Your task to perform on an android device: Go to notification settings Image 0: 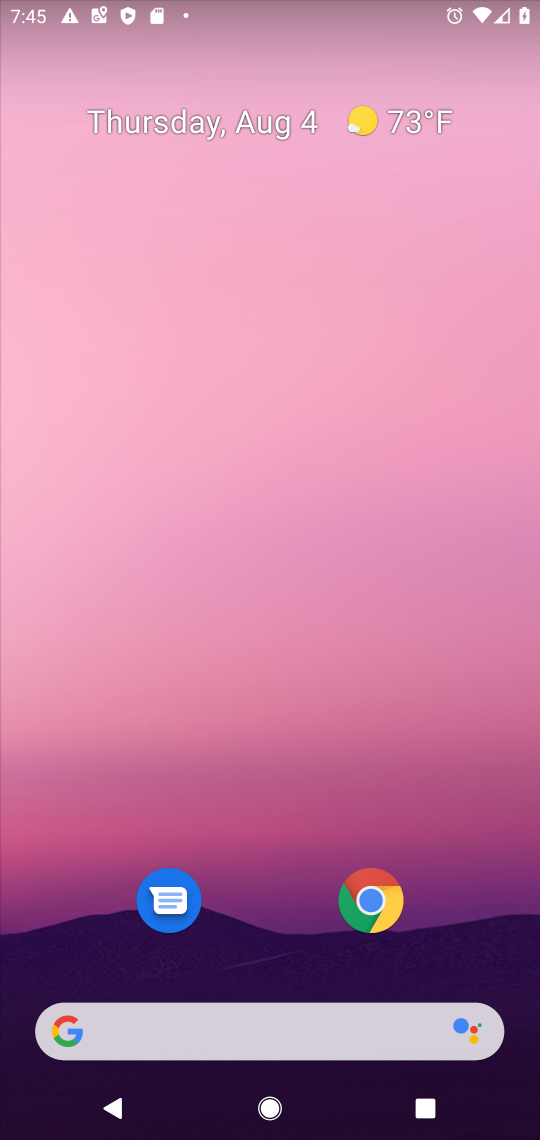
Step 0: drag from (239, 1039) to (435, 211)
Your task to perform on an android device: Go to notification settings Image 1: 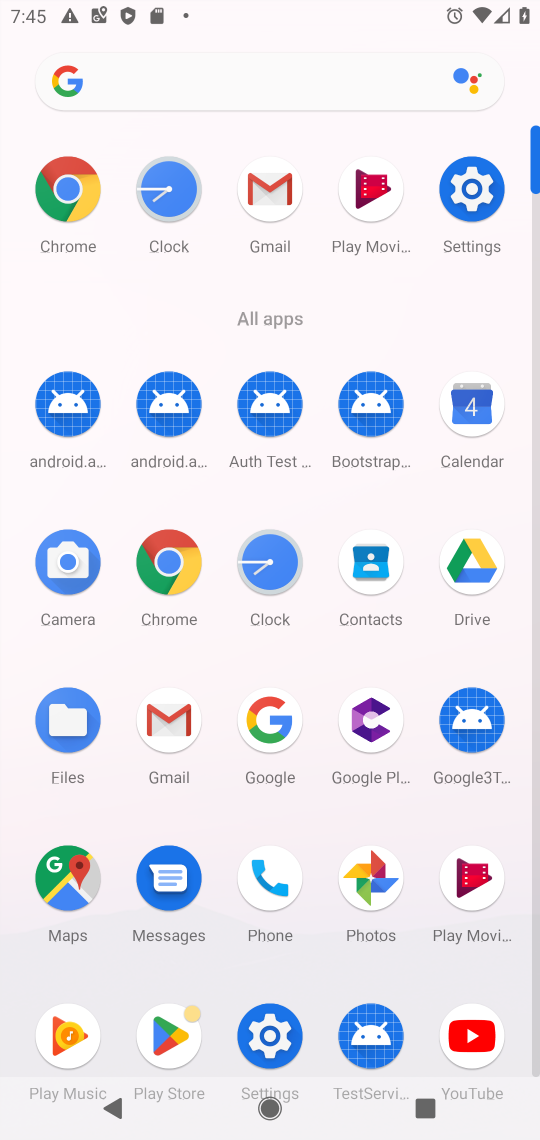
Step 1: click (475, 188)
Your task to perform on an android device: Go to notification settings Image 2: 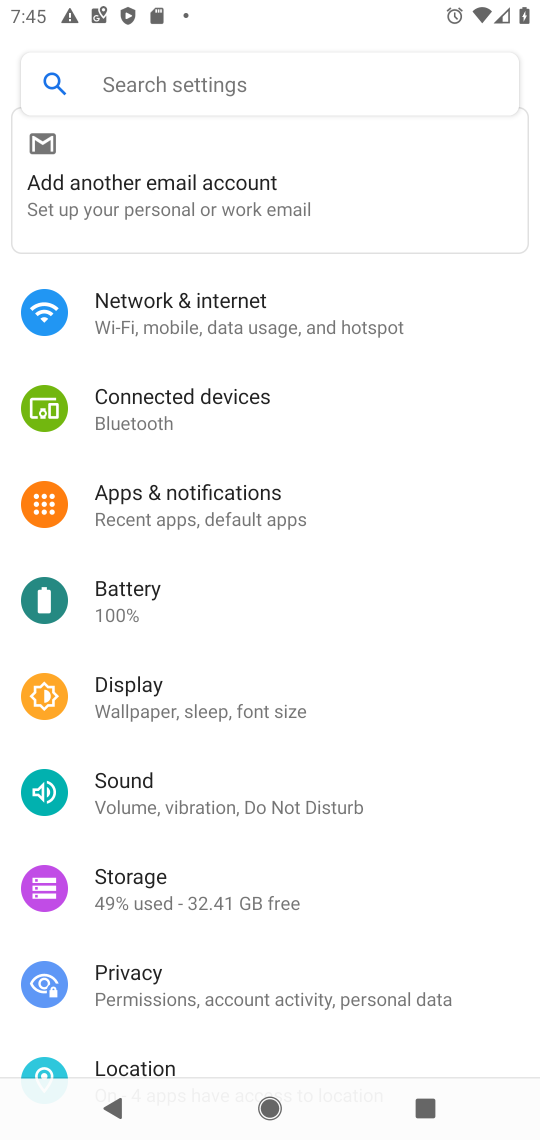
Step 2: click (212, 494)
Your task to perform on an android device: Go to notification settings Image 3: 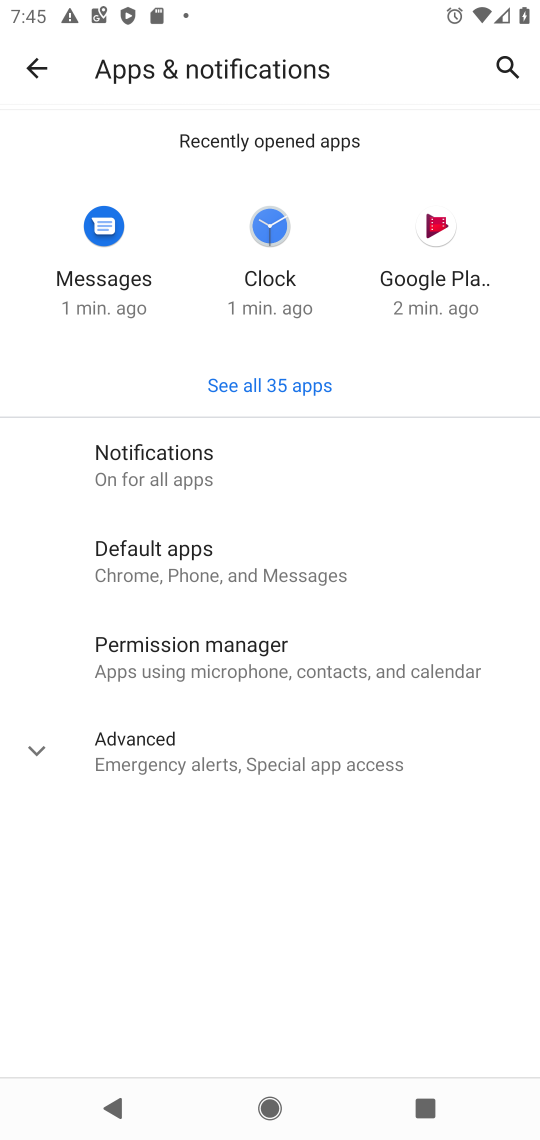
Step 3: click (154, 462)
Your task to perform on an android device: Go to notification settings Image 4: 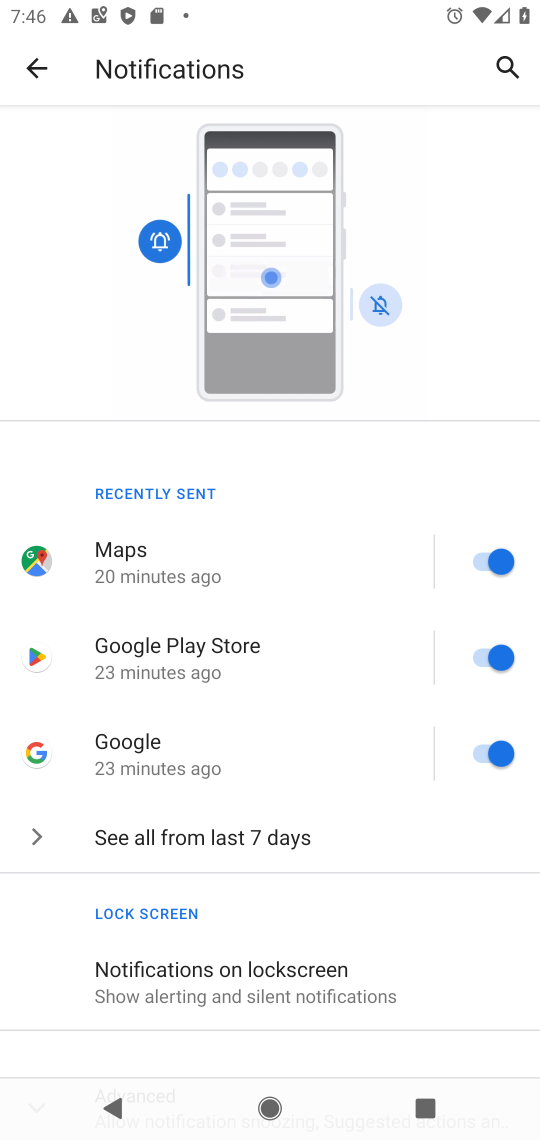
Step 4: task complete